Your task to perform on an android device: turn on showing notifications on the lock screen Image 0: 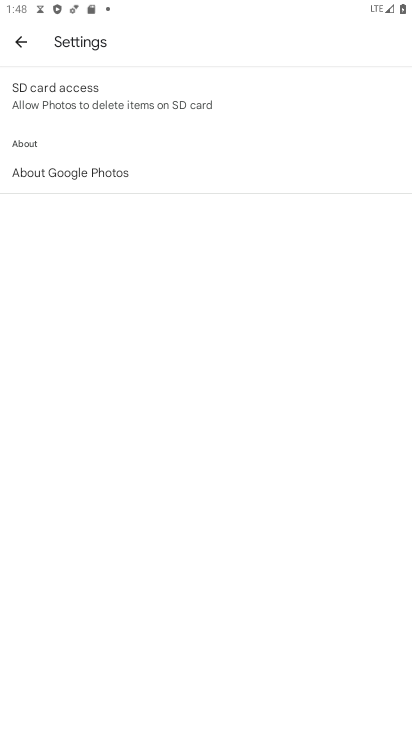
Step 0: press home button
Your task to perform on an android device: turn on showing notifications on the lock screen Image 1: 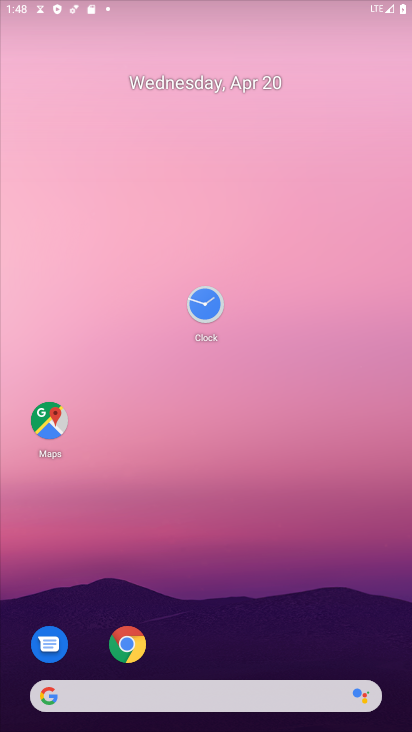
Step 1: drag from (194, 687) to (232, 98)
Your task to perform on an android device: turn on showing notifications on the lock screen Image 2: 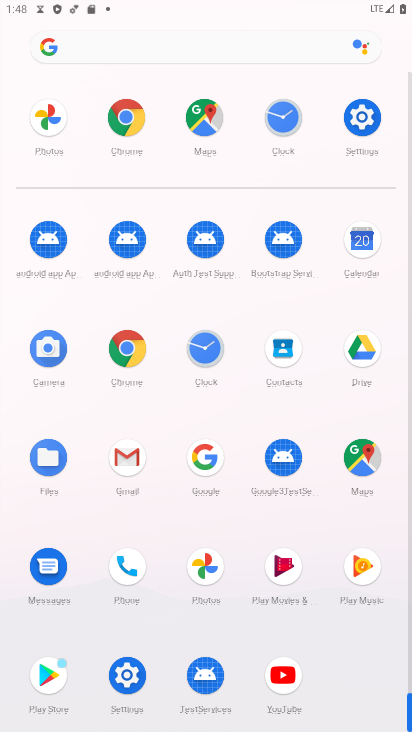
Step 2: click (131, 676)
Your task to perform on an android device: turn on showing notifications on the lock screen Image 3: 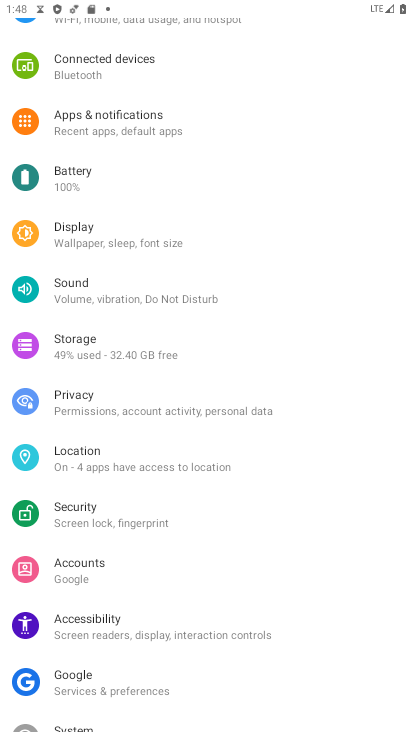
Step 3: click (124, 131)
Your task to perform on an android device: turn on showing notifications on the lock screen Image 4: 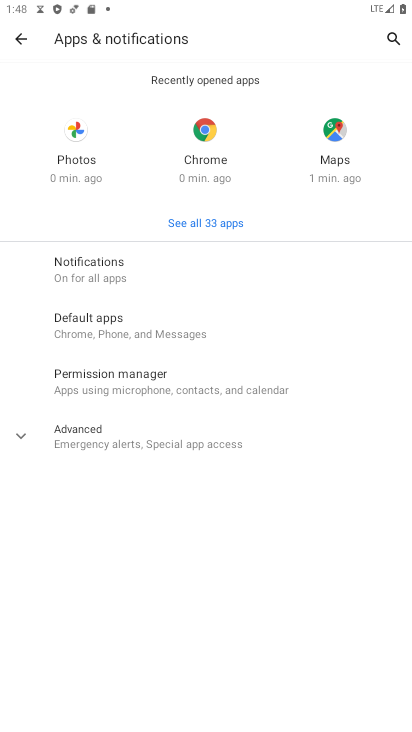
Step 4: click (130, 281)
Your task to perform on an android device: turn on showing notifications on the lock screen Image 5: 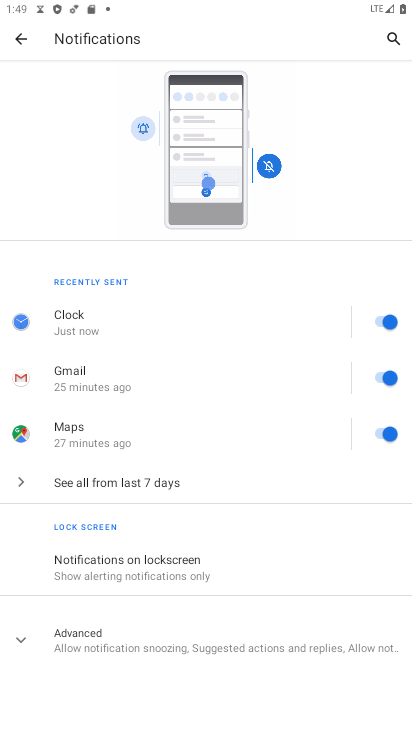
Step 5: click (167, 570)
Your task to perform on an android device: turn on showing notifications on the lock screen Image 6: 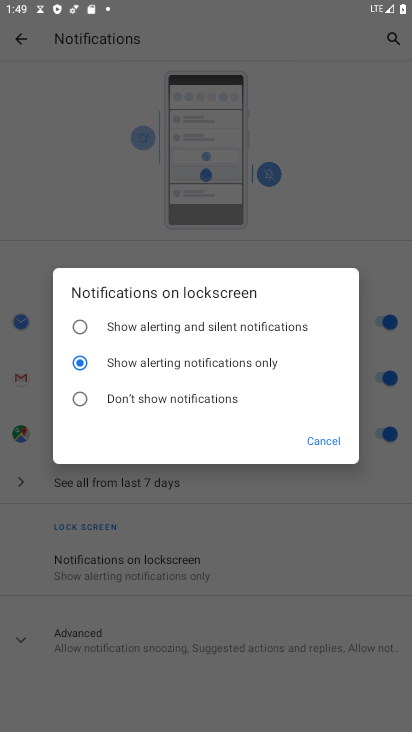
Step 6: click (160, 332)
Your task to perform on an android device: turn on showing notifications on the lock screen Image 7: 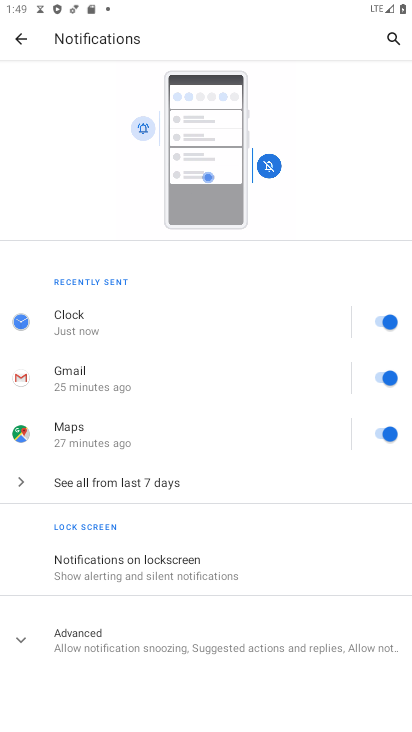
Step 7: task complete